Your task to perform on an android device: Go to notification settings Image 0: 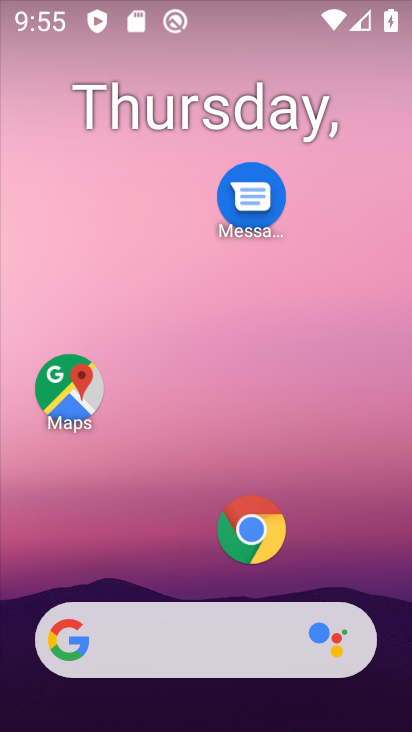
Step 0: drag from (127, 534) to (48, 8)
Your task to perform on an android device: Go to notification settings Image 1: 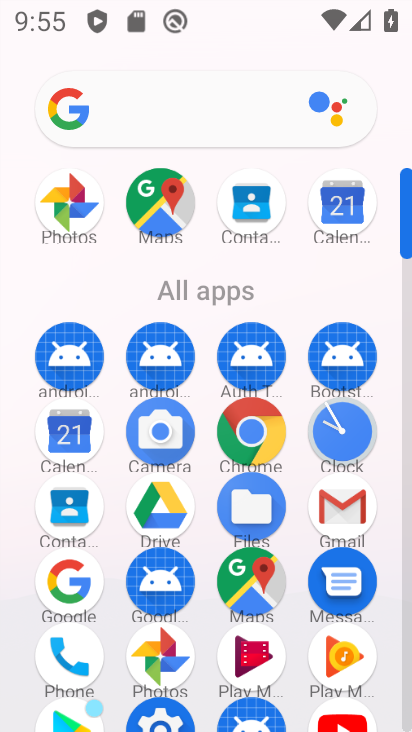
Step 1: drag from (109, 304) to (223, 45)
Your task to perform on an android device: Go to notification settings Image 2: 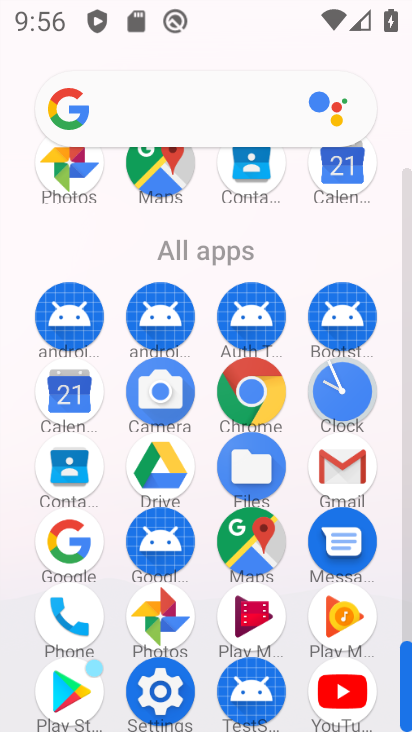
Step 2: click (161, 693)
Your task to perform on an android device: Go to notification settings Image 3: 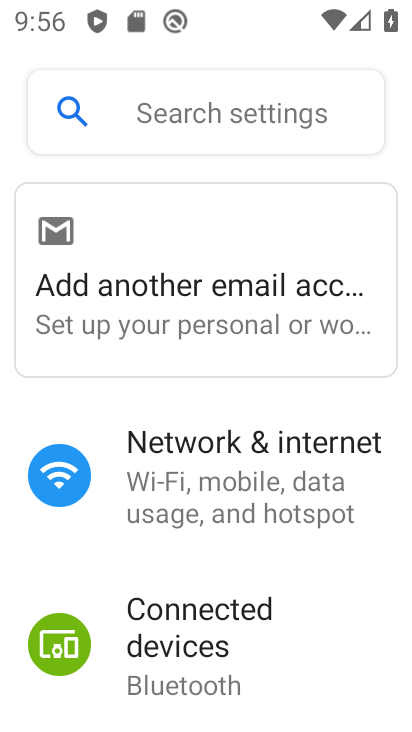
Step 3: drag from (214, 549) to (304, 370)
Your task to perform on an android device: Go to notification settings Image 4: 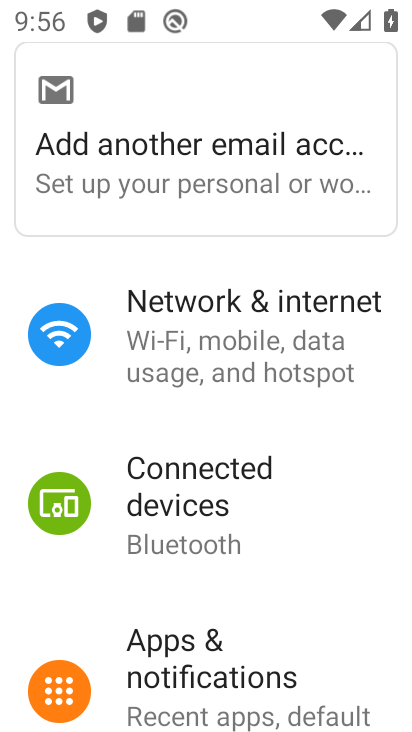
Step 4: click (209, 659)
Your task to perform on an android device: Go to notification settings Image 5: 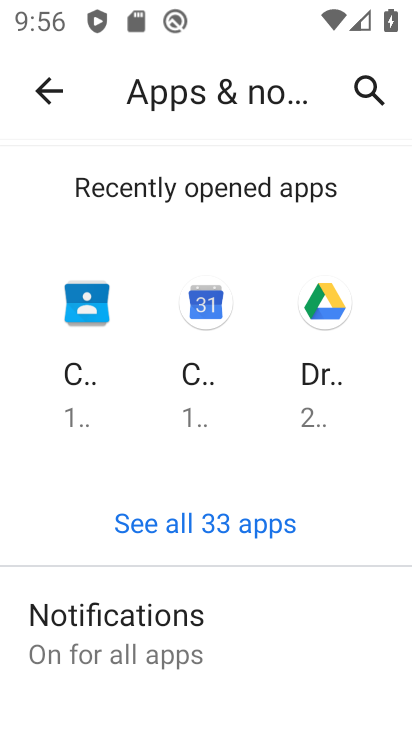
Step 5: click (166, 613)
Your task to perform on an android device: Go to notification settings Image 6: 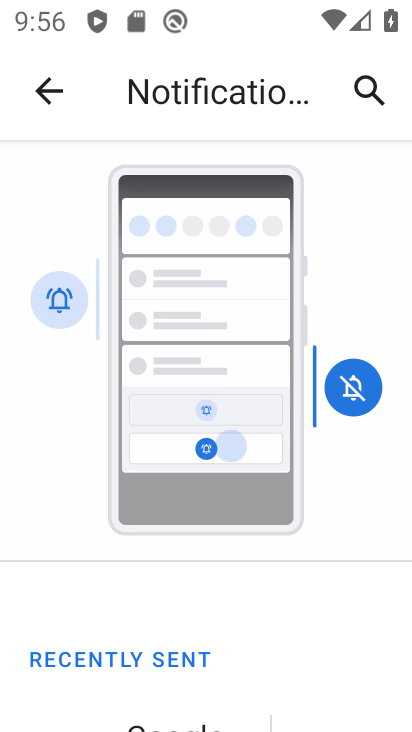
Step 6: task complete